Your task to perform on an android device: Go to Maps Image 0: 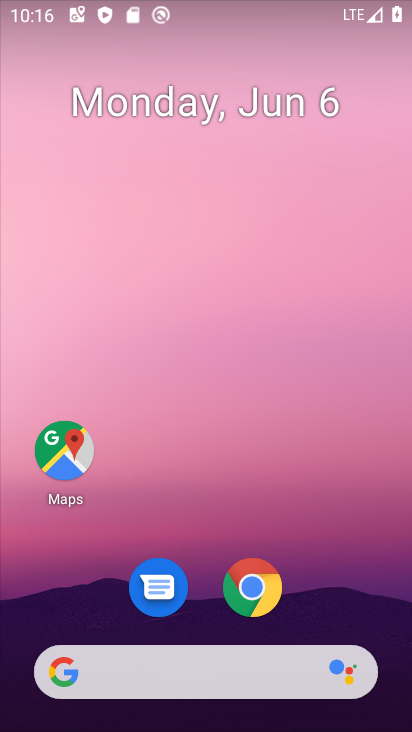
Step 0: click (41, 467)
Your task to perform on an android device: Go to Maps Image 1: 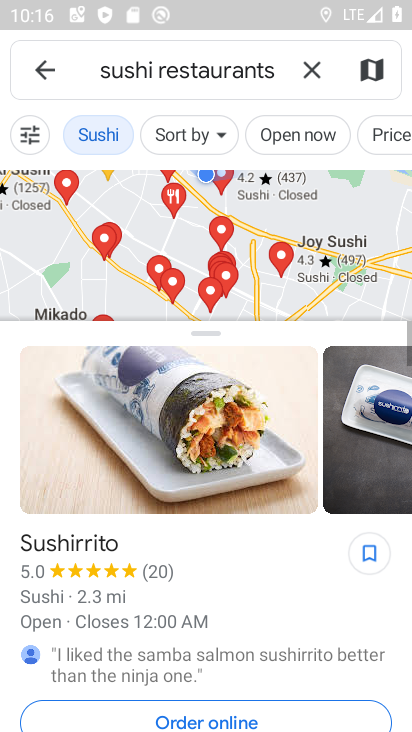
Step 1: task complete